Your task to perform on an android device: find snoozed emails in the gmail app Image 0: 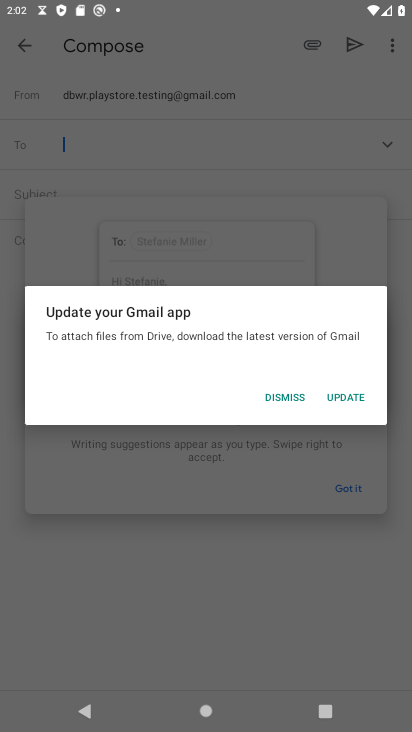
Step 0: press home button
Your task to perform on an android device: find snoozed emails in the gmail app Image 1: 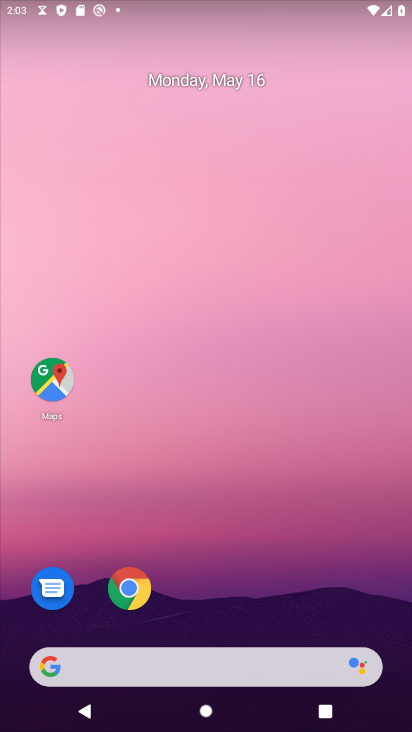
Step 1: drag from (241, 714) to (222, 144)
Your task to perform on an android device: find snoozed emails in the gmail app Image 2: 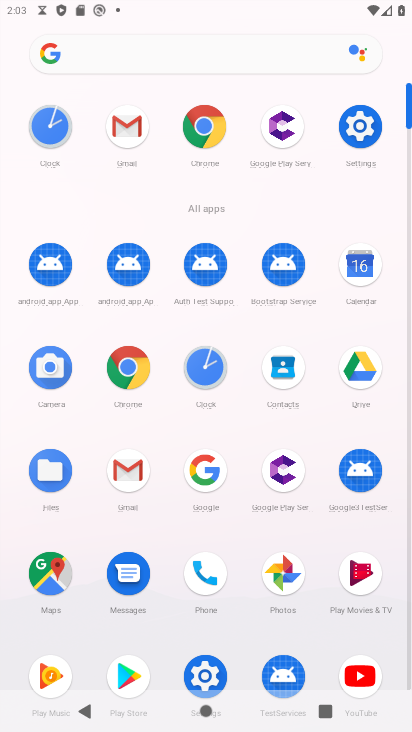
Step 2: click (126, 474)
Your task to perform on an android device: find snoozed emails in the gmail app Image 3: 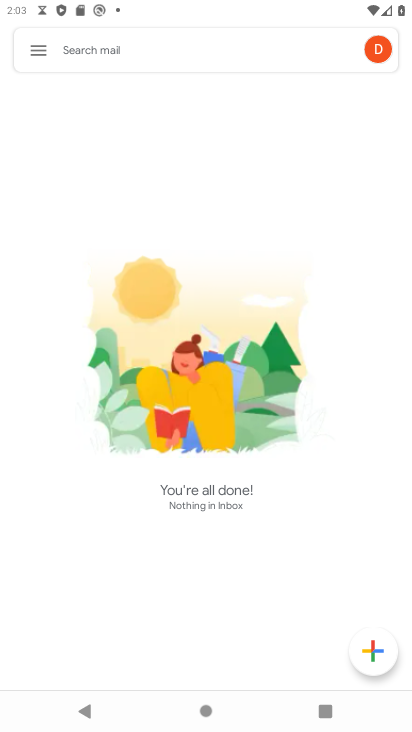
Step 3: click (35, 48)
Your task to perform on an android device: find snoozed emails in the gmail app Image 4: 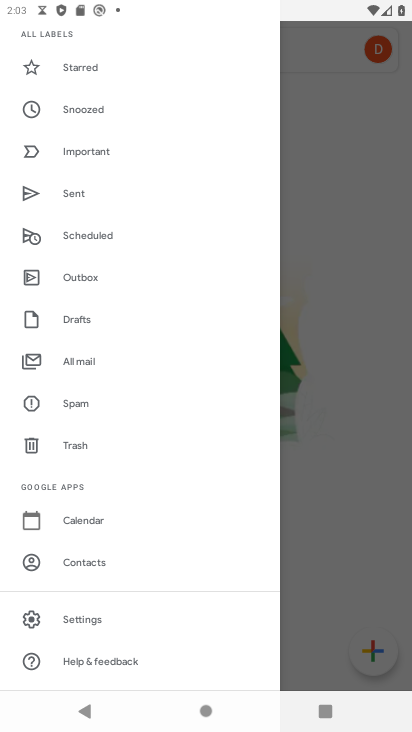
Step 4: click (97, 111)
Your task to perform on an android device: find snoozed emails in the gmail app Image 5: 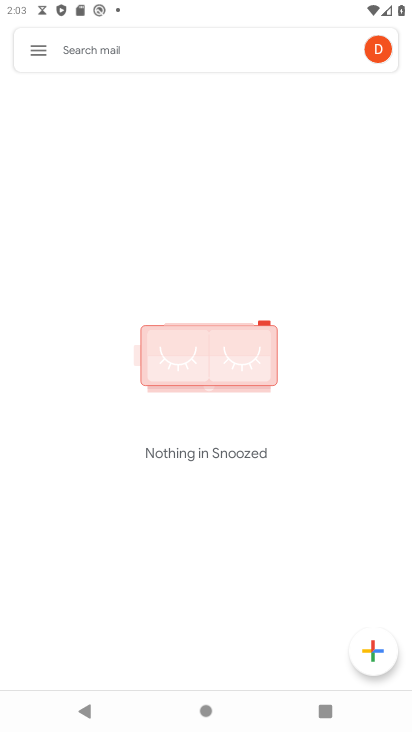
Step 5: task complete